Your task to perform on an android device: change the clock display to analog Image 0: 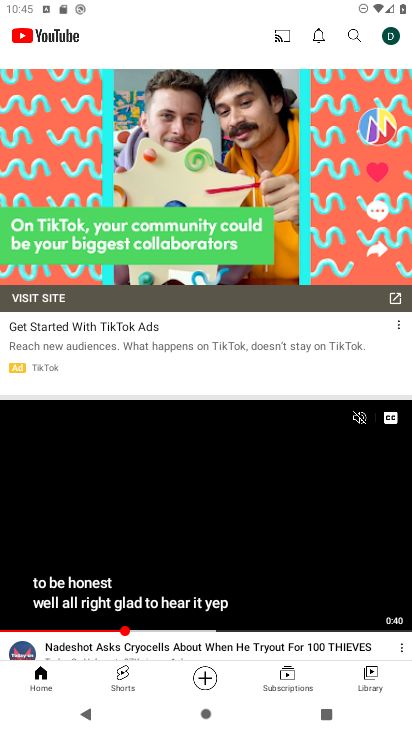
Step 0: press home button
Your task to perform on an android device: change the clock display to analog Image 1: 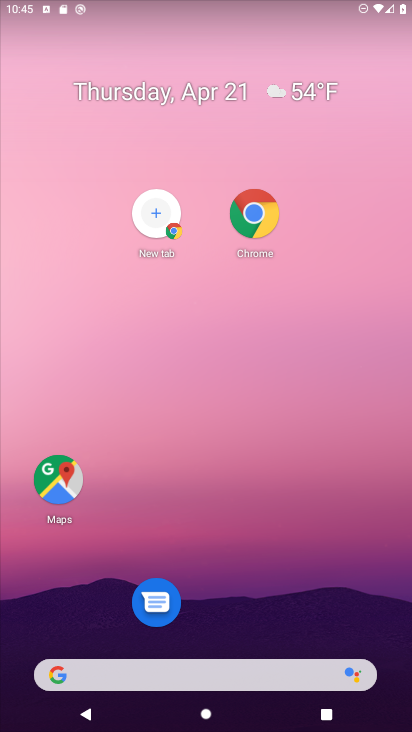
Step 1: drag from (229, 538) to (293, 65)
Your task to perform on an android device: change the clock display to analog Image 2: 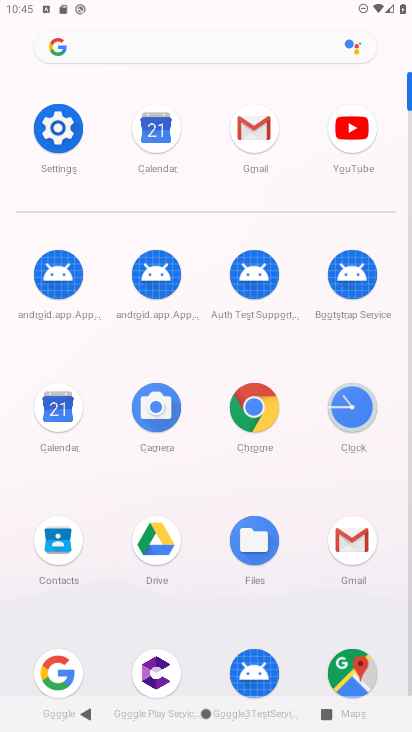
Step 2: click (351, 397)
Your task to perform on an android device: change the clock display to analog Image 3: 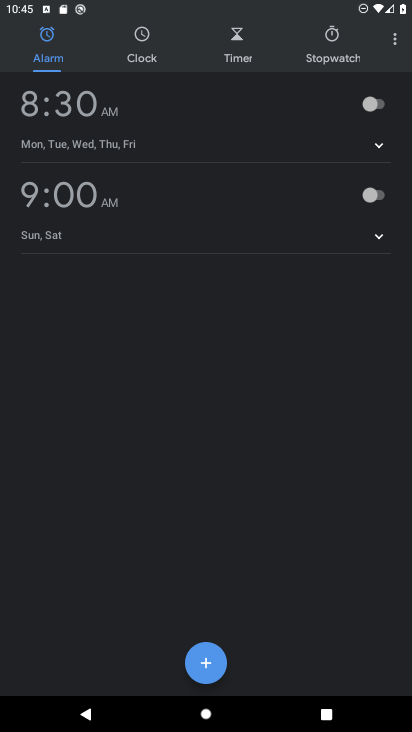
Step 3: click (396, 50)
Your task to perform on an android device: change the clock display to analog Image 4: 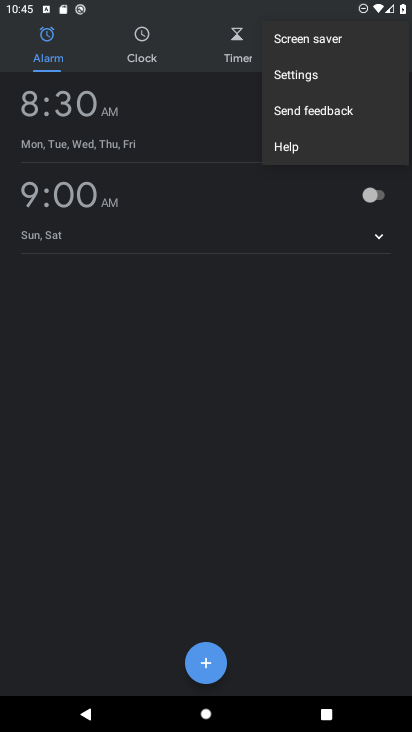
Step 4: click (307, 76)
Your task to perform on an android device: change the clock display to analog Image 5: 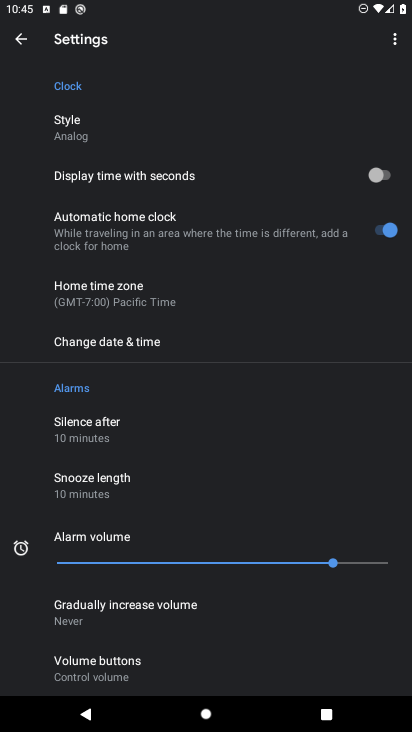
Step 5: click (103, 130)
Your task to perform on an android device: change the clock display to analog Image 6: 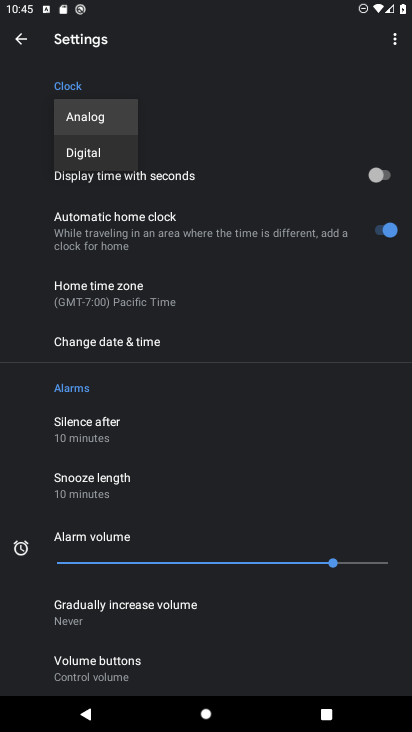
Step 6: task complete